Your task to perform on an android device: make emails show in primary in the gmail app Image 0: 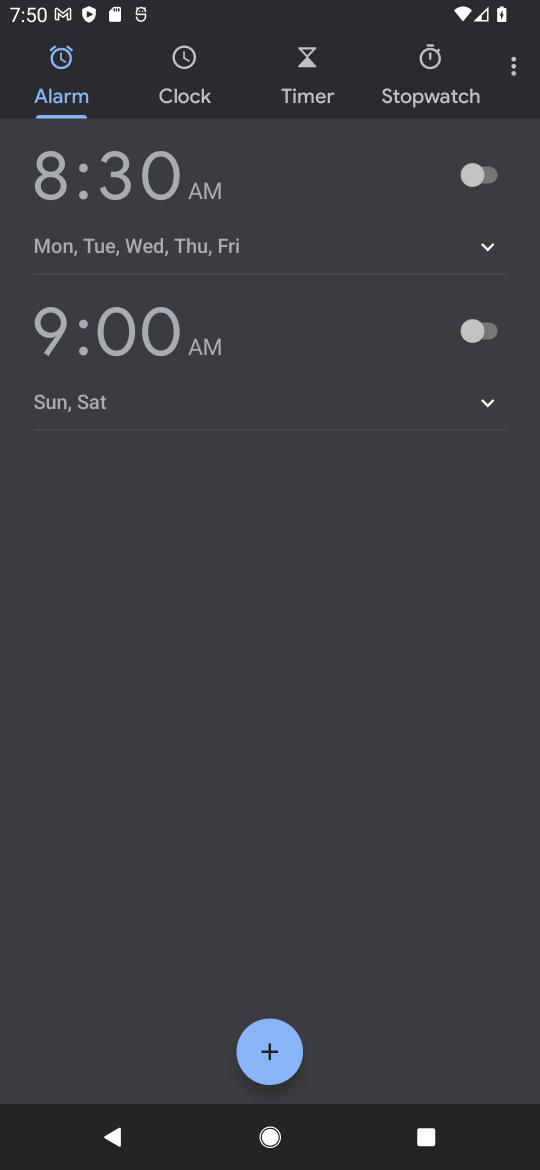
Step 0: press home button
Your task to perform on an android device: make emails show in primary in the gmail app Image 1: 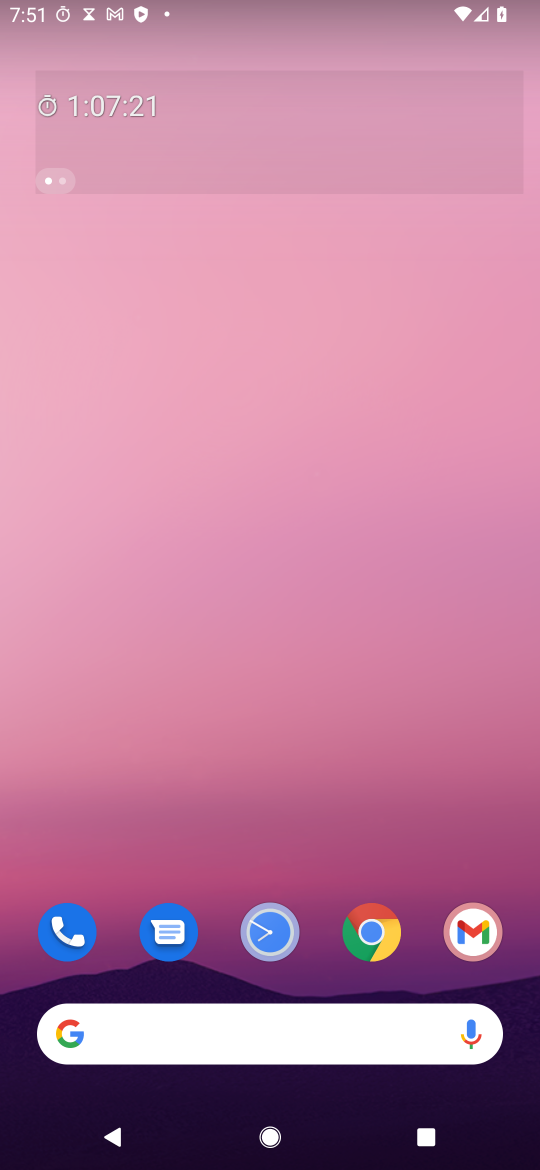
Step 1: drag from (251, 857) to (517, 1164)
Your task to perform on an android device: make emails show in primary in the gmail app Image 2: 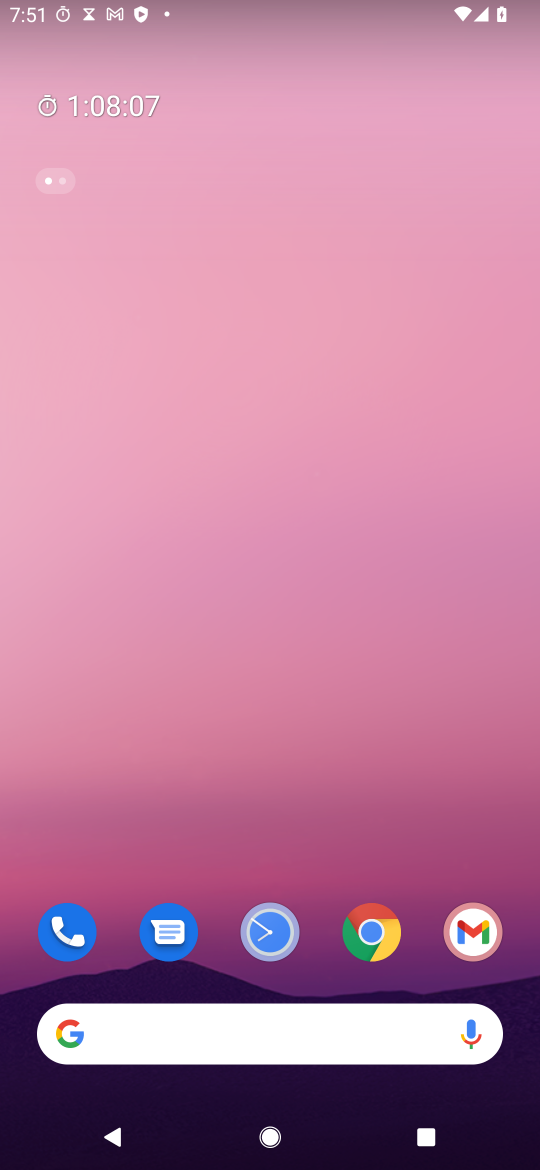
Step 2: drag from (352, 823) to (262, 135)
Your task to perform on an android device: make emails show in primary in the gmail app Image 3: 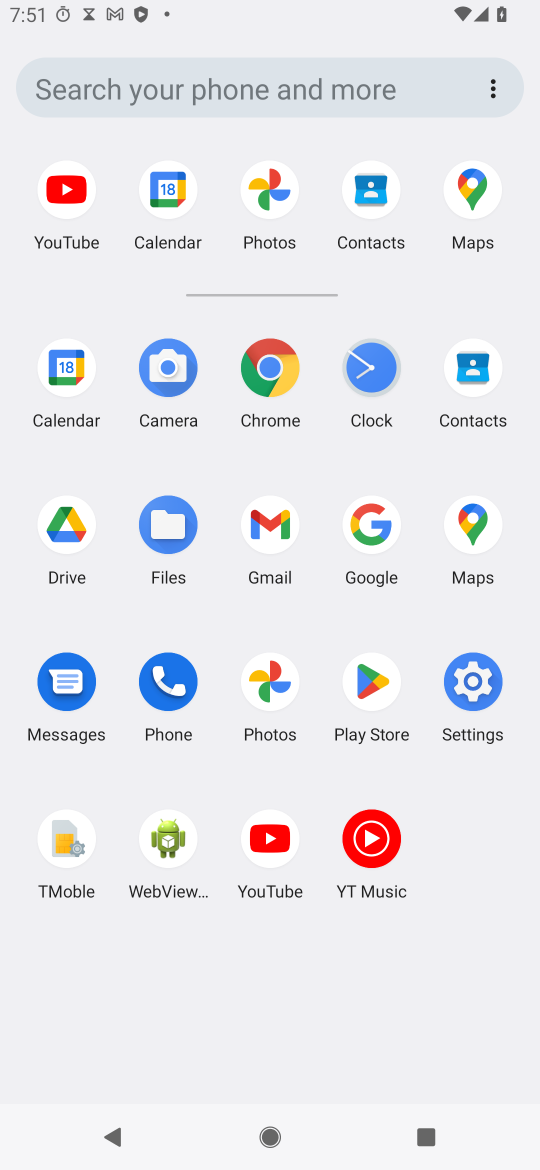
Step 3: click (280, 530)
Your task to perform on an android device: make emails show in primary in the gmail app Image 4: 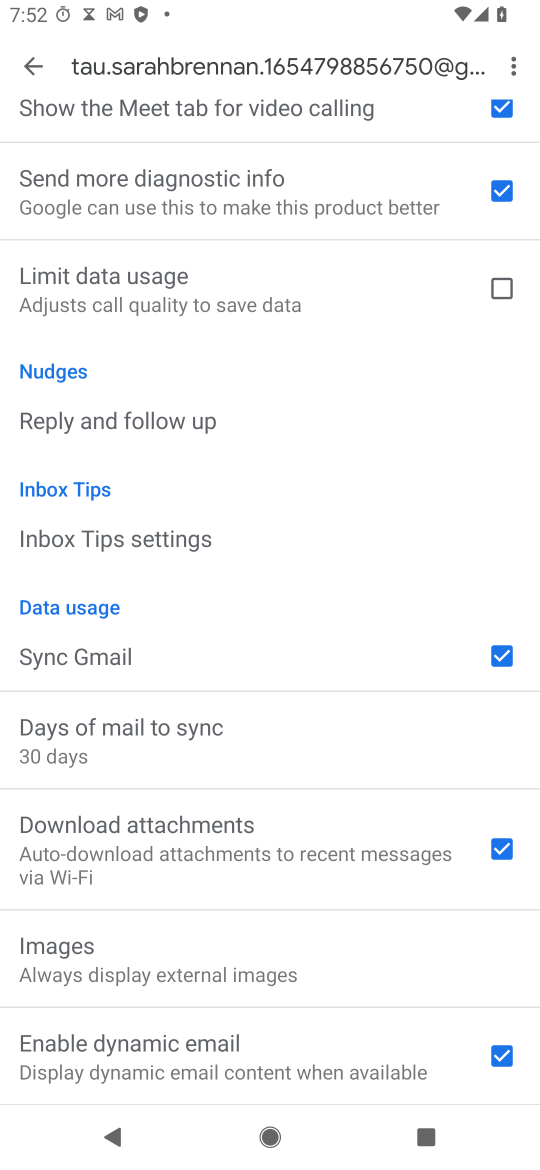
Step 4: task complete